Your task to perform on an android device: How big is the earth? Image 0: 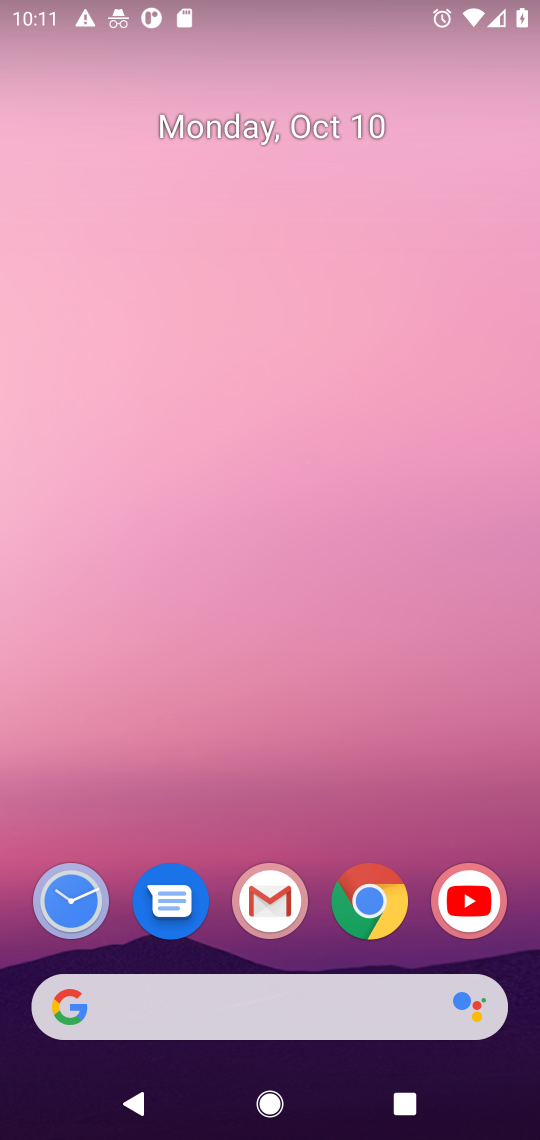
Step 0: press home button
Your task to perform on an android device: How big is the earth? Image 1: 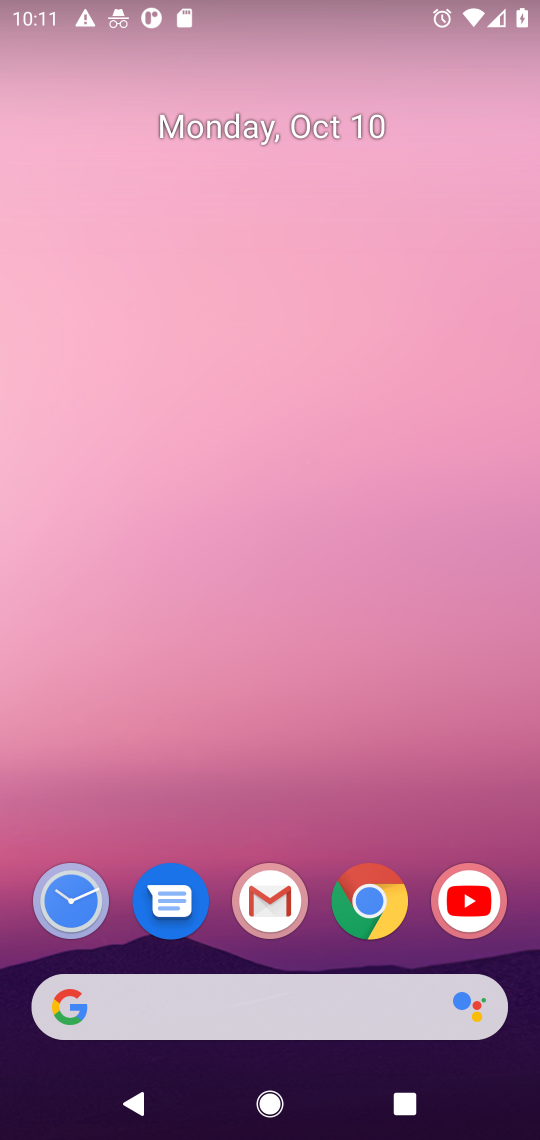
Step 1: click (288, 1002)
Your task to perform on an android device: How big is the earth? Image 2: 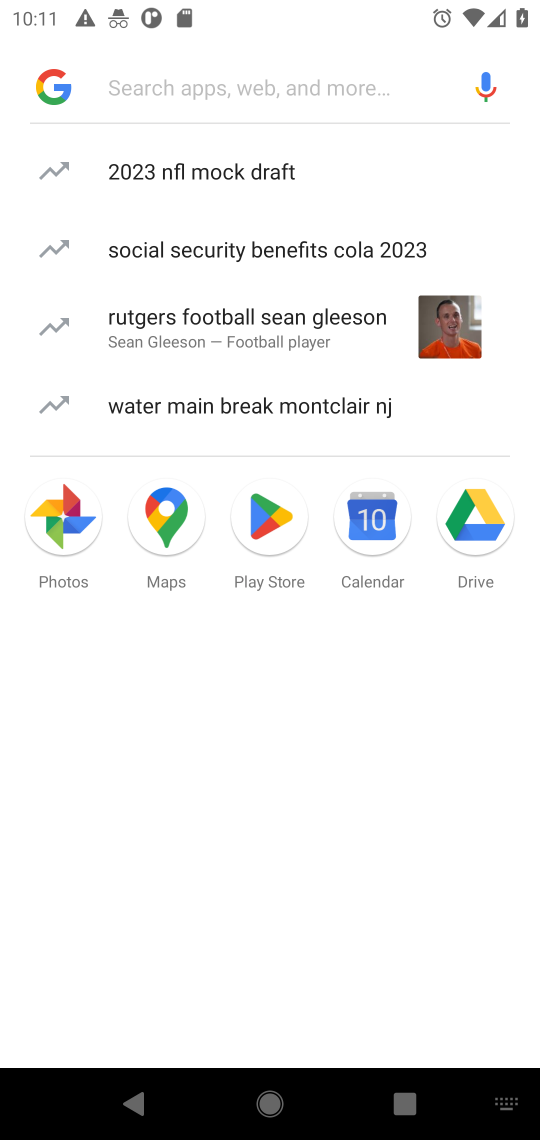
Step 2: type "How big is the earth"
Your task to perform on an android device: How big is the earth? Image 3: 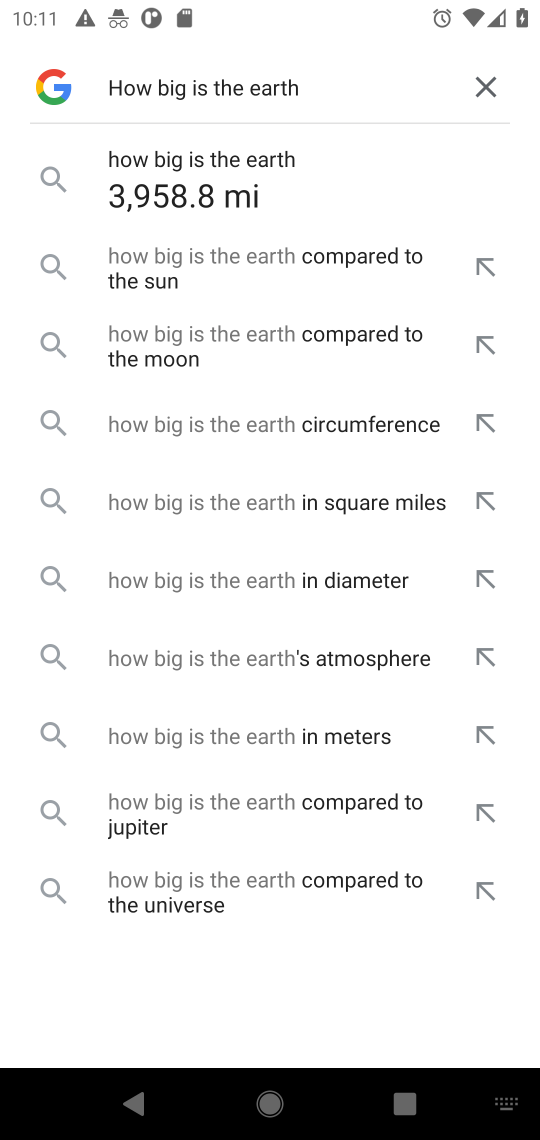
Step 3: press enter
Your task to perform on an android device: How big is the earth? Image 4: 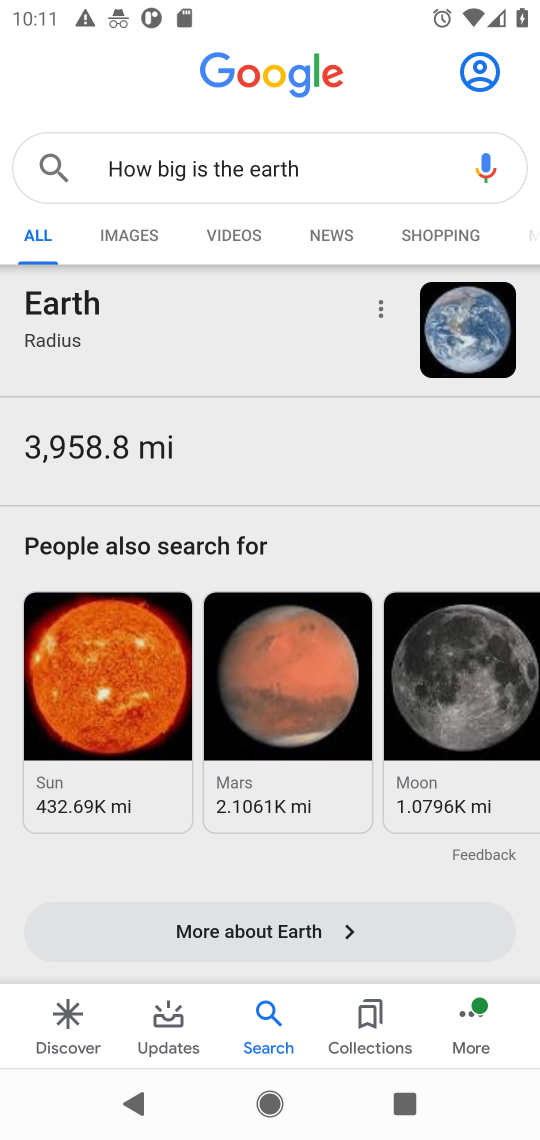
Step 4: task complete